Your task to perform on an android device: Go to privacy settings Image 0: 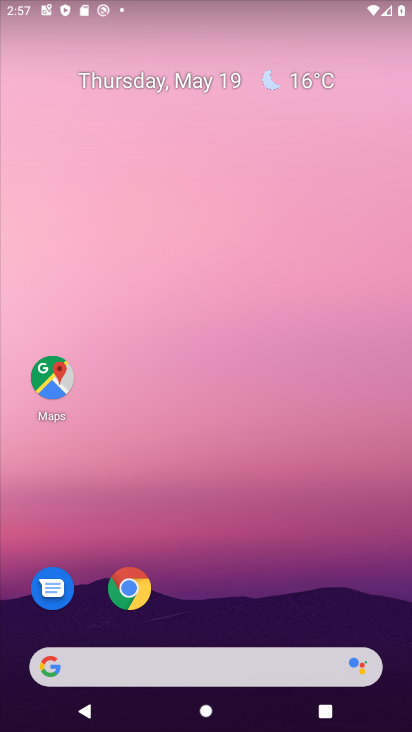
Step 0: drag from (279, 640) to (232, 163)
Your task to perform on an android device: Go to privacy settings Image 1: 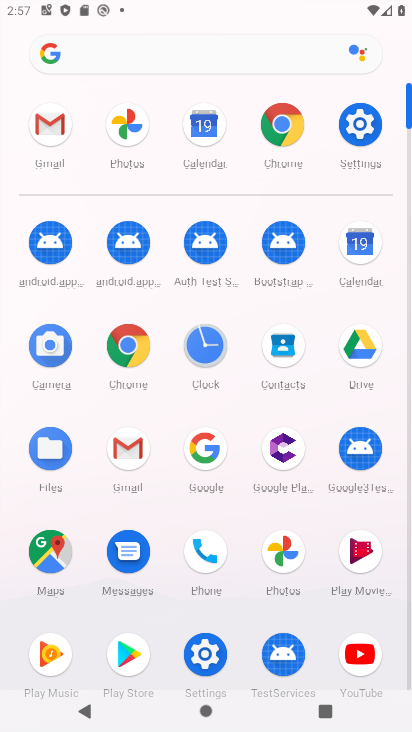
Step 1: click (371, 132)
Your task to perform on an android device: Go to privacy settings Image 2: 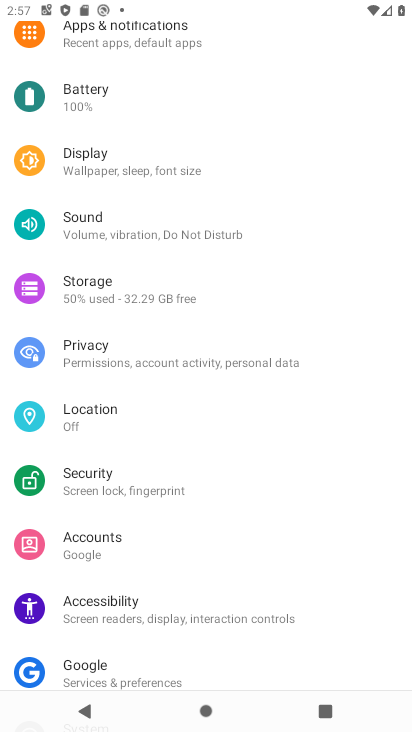
Step 2: drag from (193, 593) to (204, 315)
Your task to perform on an android device: Go to privacy settings Image 3: 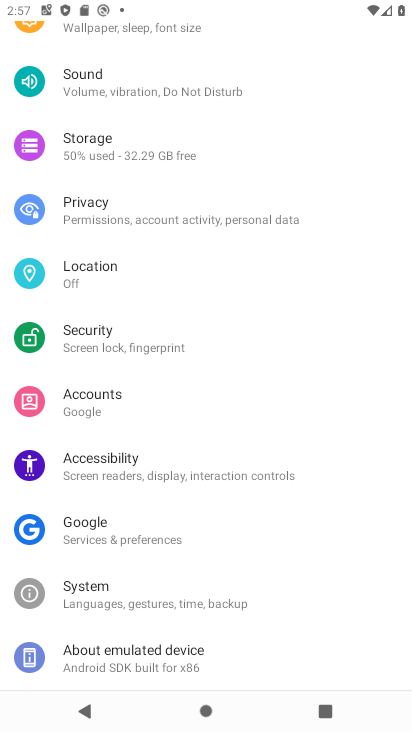
Step 3: click (93, 218)
Your task to perform on an android device: Go to privacy settings Image 4: 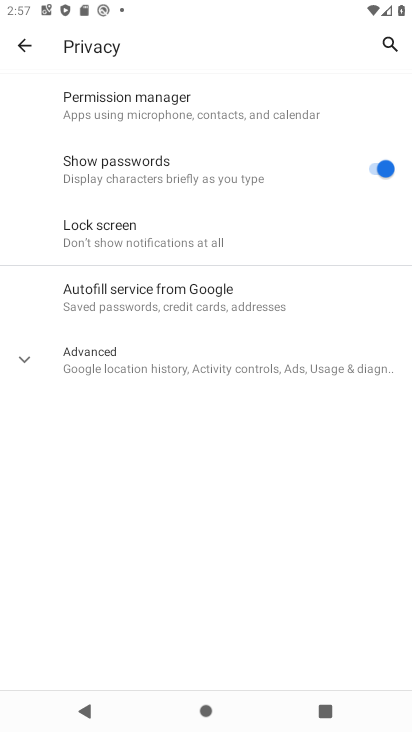
Step 4: task complete